Your task to perform on an android device: turn smart compose on in the gmail app Image 0: 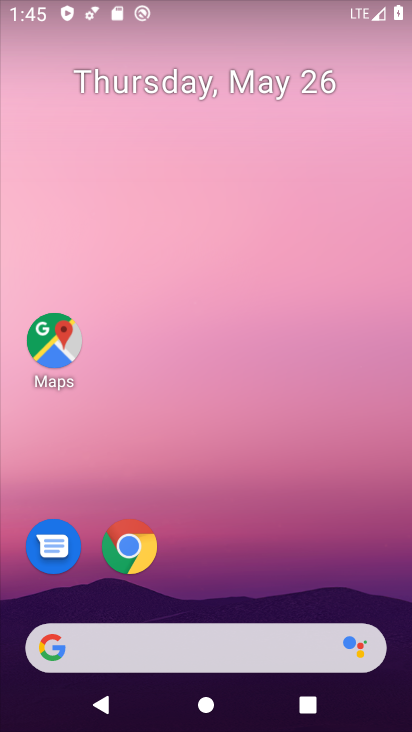
Step 0: drag from (284, 395) to (238, 1)
Your task to perform on an android device: turn smart compose on in the gmail app Image 1: 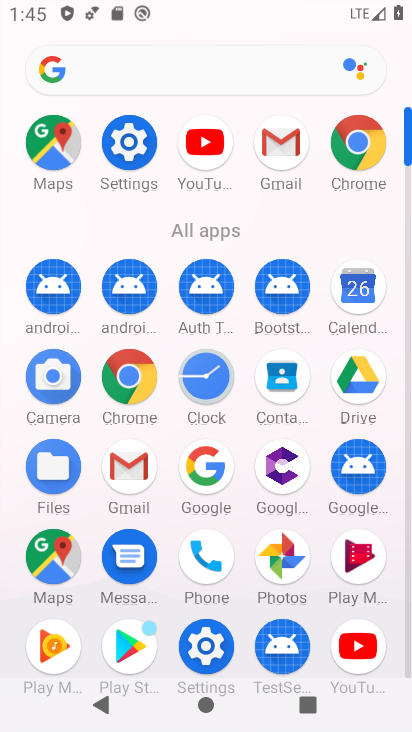
Step 1: click (131, 481)
Your task to perform on an android device: turn smart compose on in the gmail app Image 2: 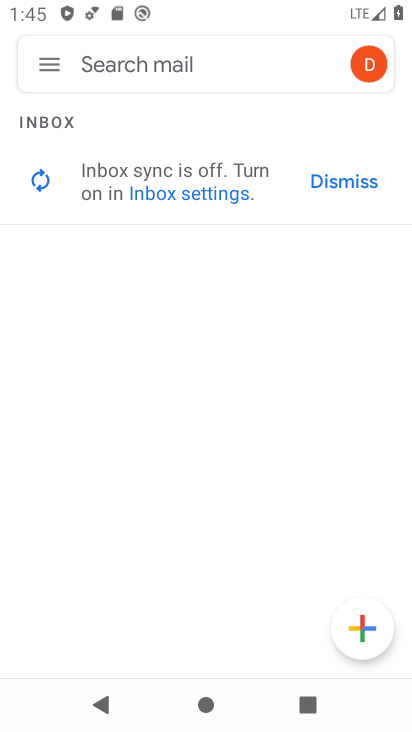
Step 2: click (48, 62)
Your task to perform on an android device: turn smart compose on in the gmail app Image 3: 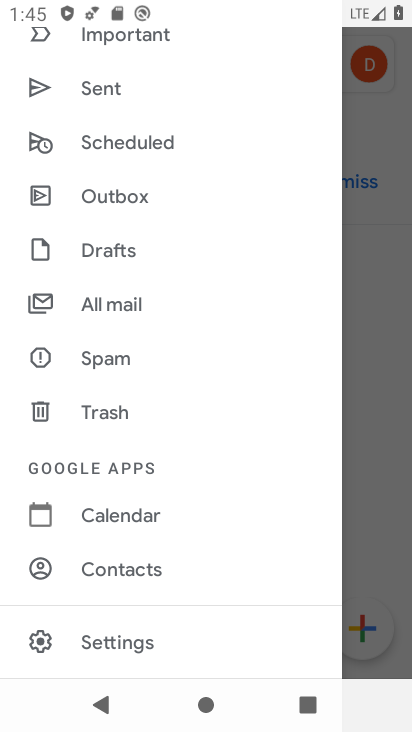
Step 3: click (128, 653)
Your task to perform on an android device: turn smart compose on in the gmail app Image 4: 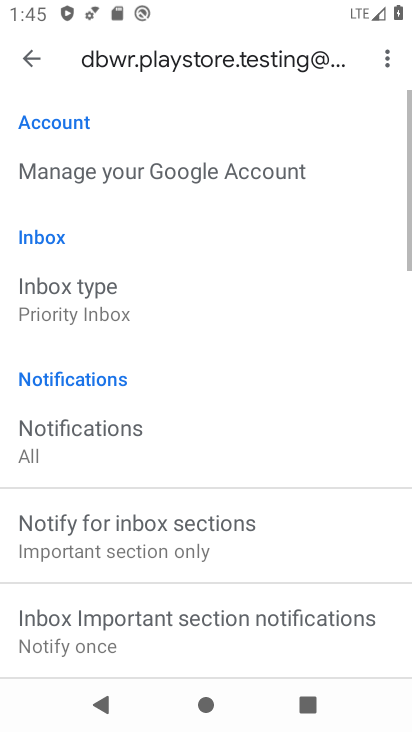
Step 4: task complete